Your task to perform on an android device: move a message to another label in the gmail app Image 0: 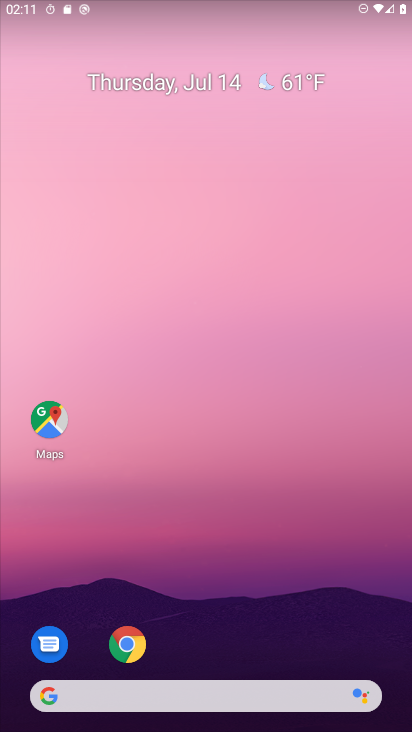
Step 0: drag from (262, 629) to (258, 284)
Your task to perform on an android device: move a message to another label in the gmail app Image 1: 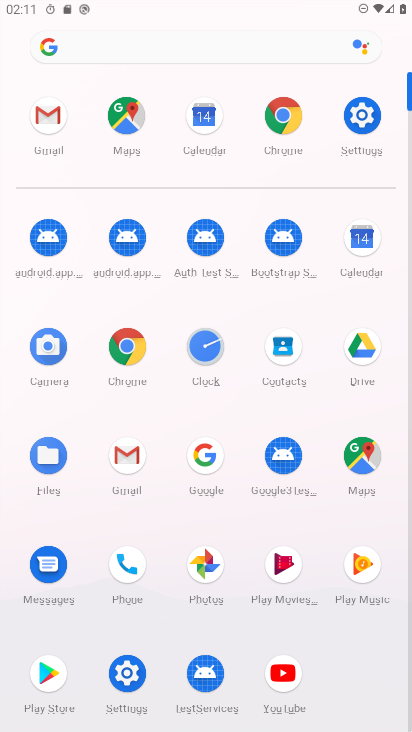
Step 1: click (53, 117)
Your task to perform on an android device: move a message to another label in the gmail app Image 2: 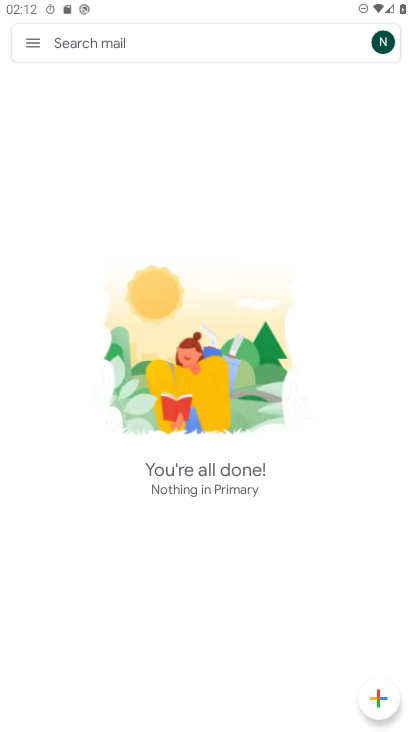
Step 2: click (19, 35)
Your task to perform on an android device: move a message to another label in the gmail app Image 3: 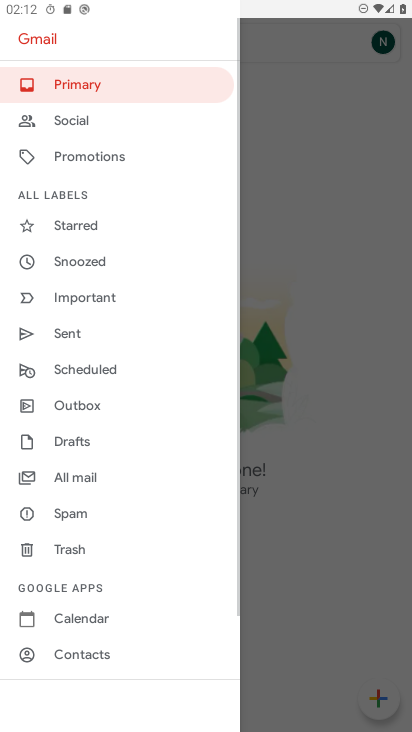
Step 3: click (94, 483)
Your task to perform on an android device: move a message to another label in the gmail app Image 4: 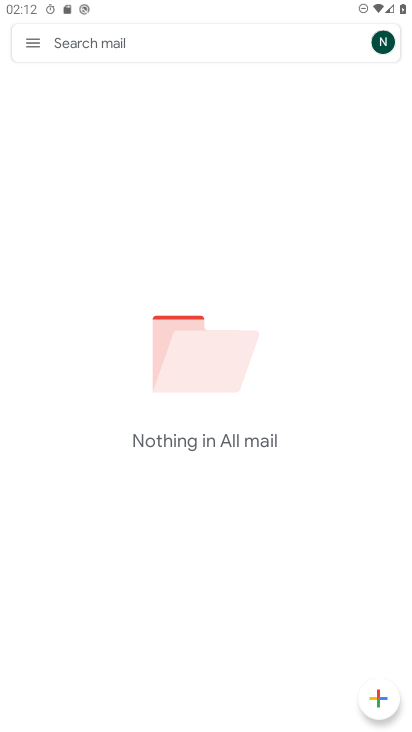
Step 4: task complete